Your task to perform on an android device: all mails in gmail Image 0: 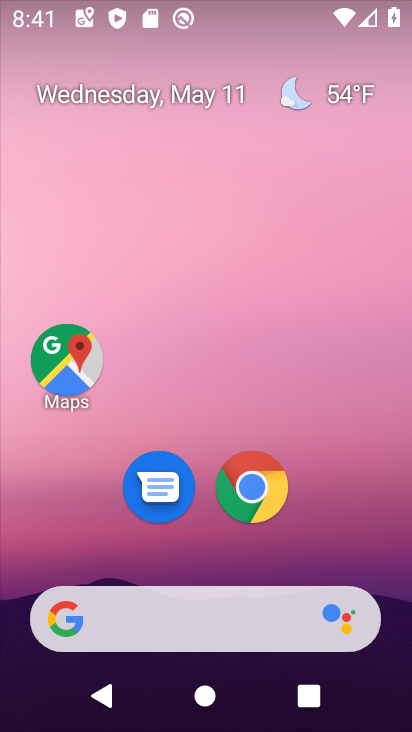
Step 0: drag from (66, 538) to (150, 126)
Your task to perform on an android device: all mails in gmail Image 1: 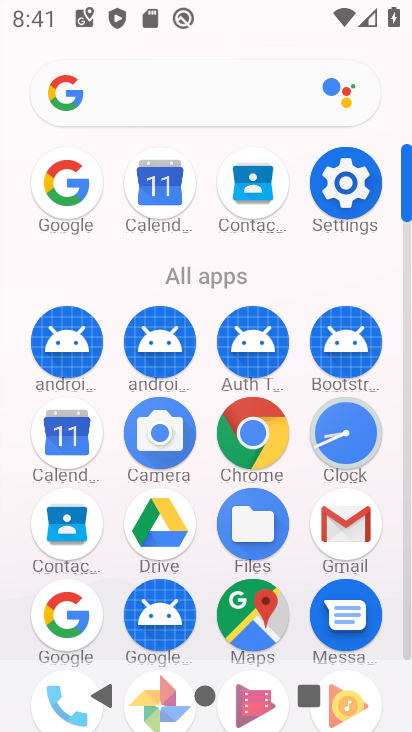
Step 1: drag from (99, 632) to (169, 455)
Your task to perform on an android device: all mails in gmail Image 2: 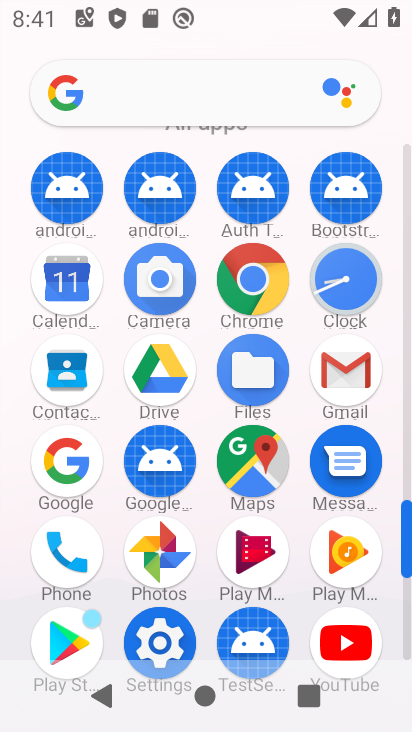
Step 2: click (353, 364)
Your task to perform on an android device: all mails in gmail Image 3: 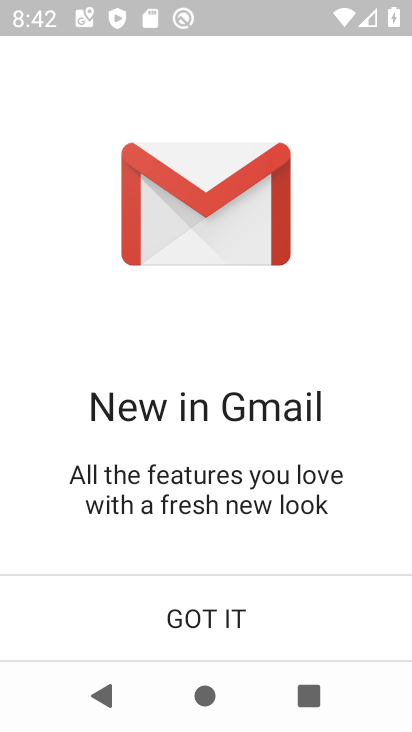
Step 3: click (184, 629)
Your task to perform on an android device: all mails in gmail Image 4: 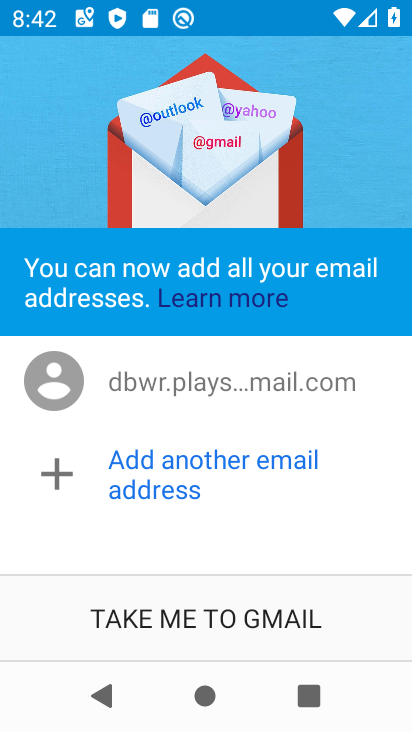
Step 4: click (204, 623)
Your task to perform on an android device: all mails in gmail Image 5: 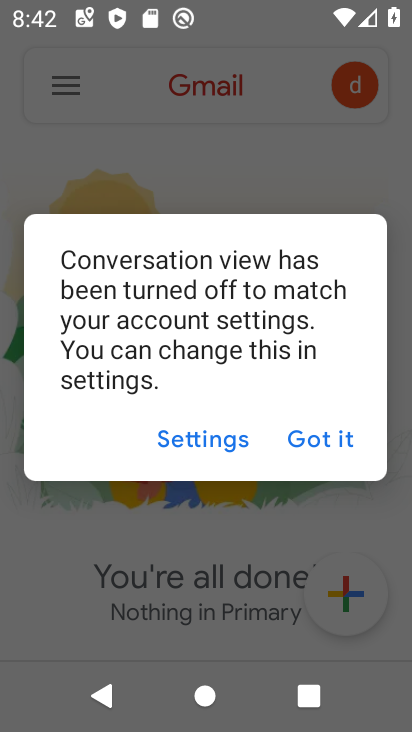
Step 5: click (322, 437)
Your task to perform on an android device: all mails in gmail Image 6: 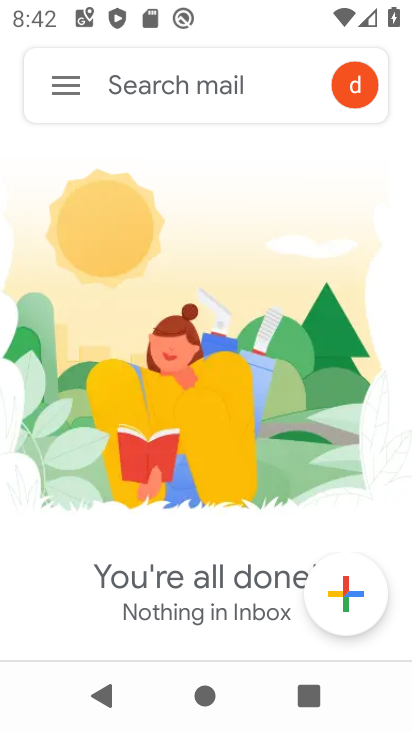
Step 6: click (76, 82)
Your task to perform on an android device: all mails in gmail Image 7: 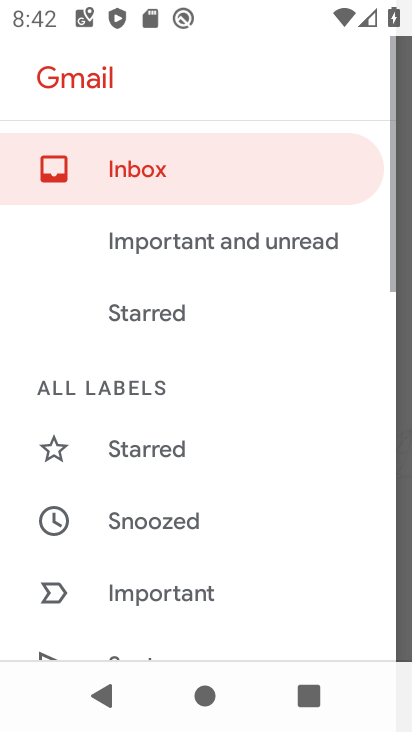
Step 7: drag from (188, 591) to (272, 273)
Your task to perform on an android device: all mails in gmail Image 8: 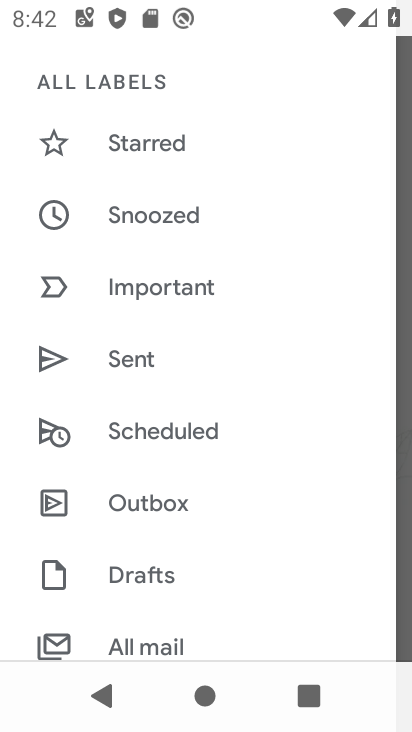
Step 8: drag from (194, 588) to (271, 388)
Your task to perform on an android device: all mails in gmail Image 9: 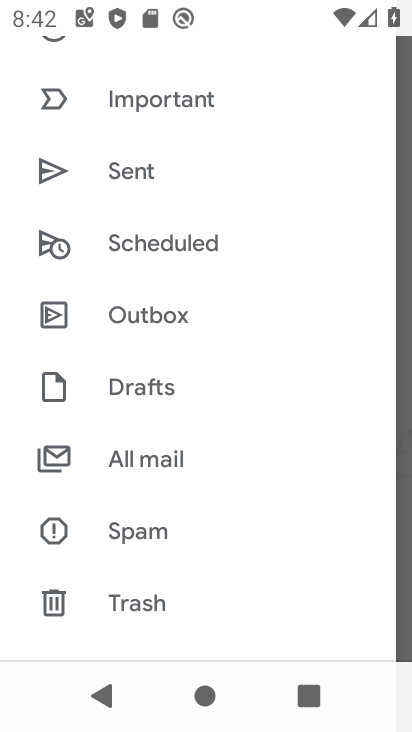
Step 9: click (209, 452)
Your task to perform on an android device: all mails in gmail Image 10: 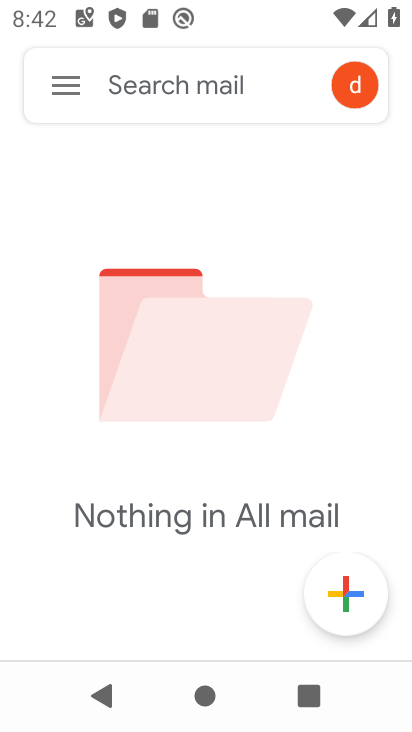
Step 10: task complete